Your task to perform on an android device: turn on airplane mode Image 0: 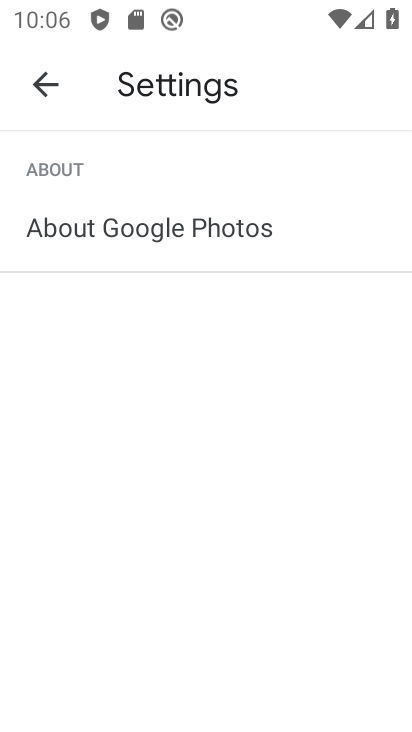
Step 0: press home button
Your task to perform on an android device: turn on airplane mode Image 1: 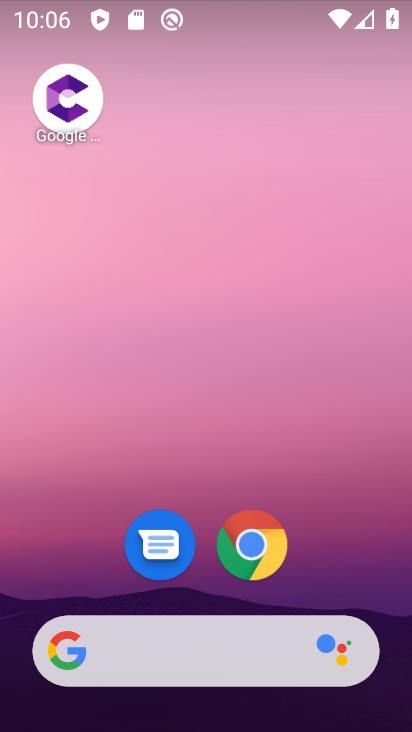
Step 1: drag from (192, 595) to (314, 13)
Your task to perform on an android device: turn on airplane mode Image 2: 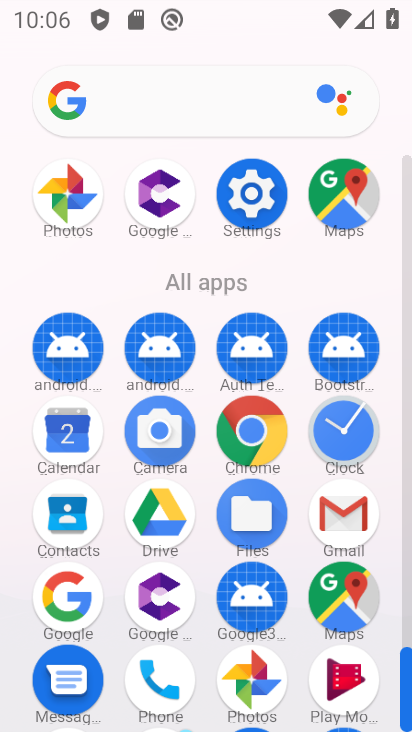
Step 2: click (262, 239)
Your task to perform on an android device: turn on airplane mode Image 3: 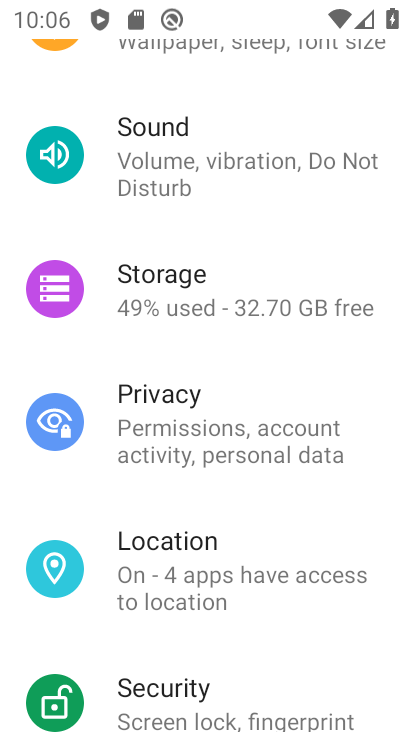
Step 3: drag from (197, 222) to (160, 684)
Your task to perform on an android device: turn on airplane mode Image 4: 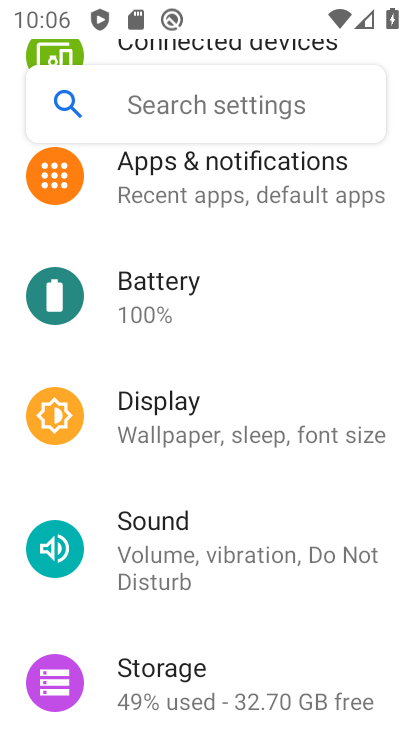
Step 4: drag from (211, 263) to (217, 730)
Your task to perform on an android device: turn on airplane mode Image 5: 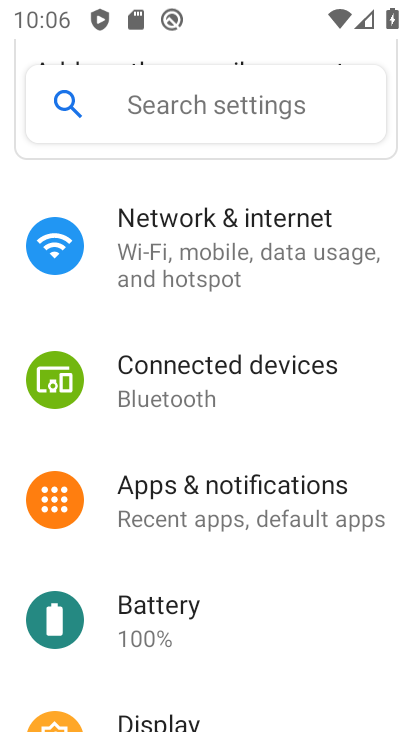
Step 5: click (217, 264)
Your task to perform on an android device: turn on airplane mode Image 6: 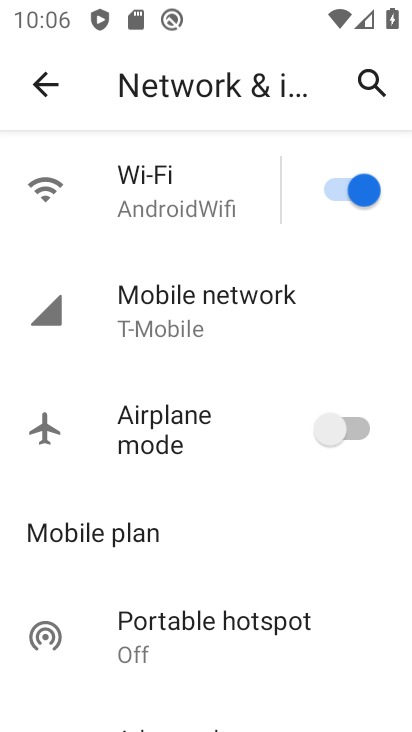
Step 6: click (378, 426)
Your task to perform on an android device: turn on airplane mode Image 7: 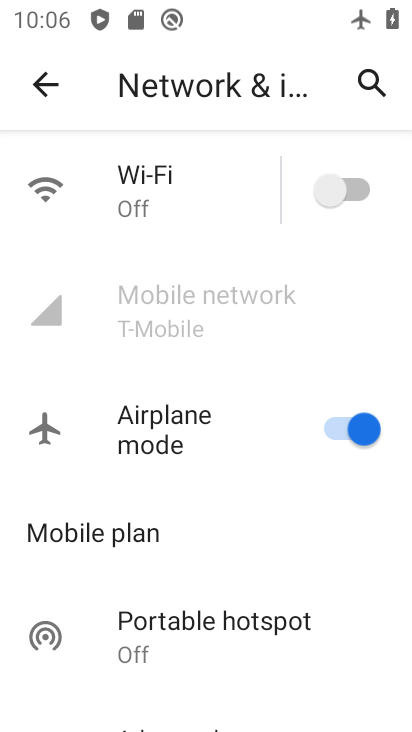
Step 7: task complete